Your task to perform on an android device: Open eBay Image 0: 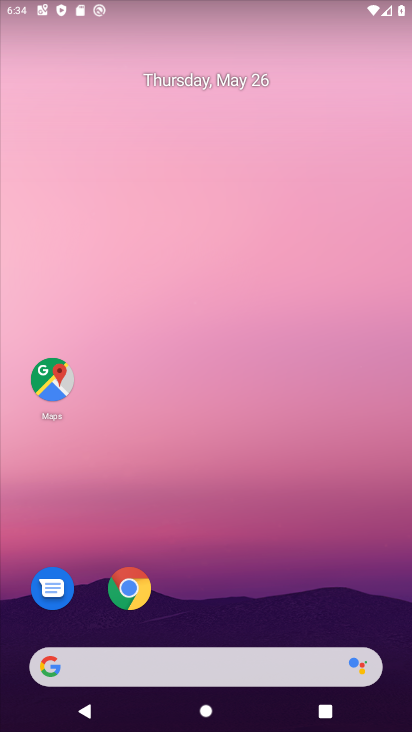
Step 0: drag from (350, 635) to (287, 61)
Your task to perform on an android device: Open eBay Image 1: 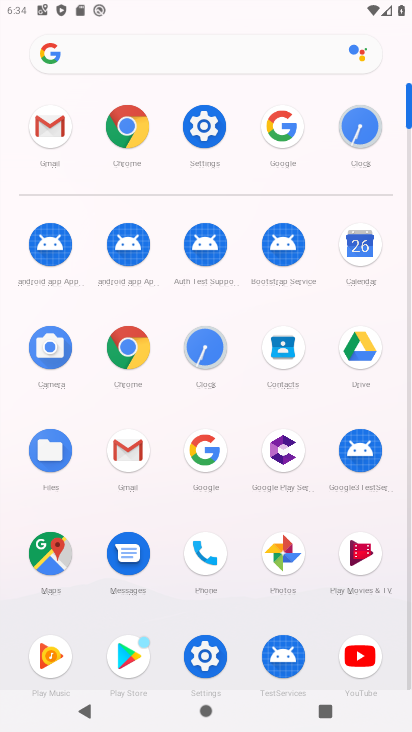
Step 1: click (205, 466)
Your task to perform on an android device: Open eBay Image 2: 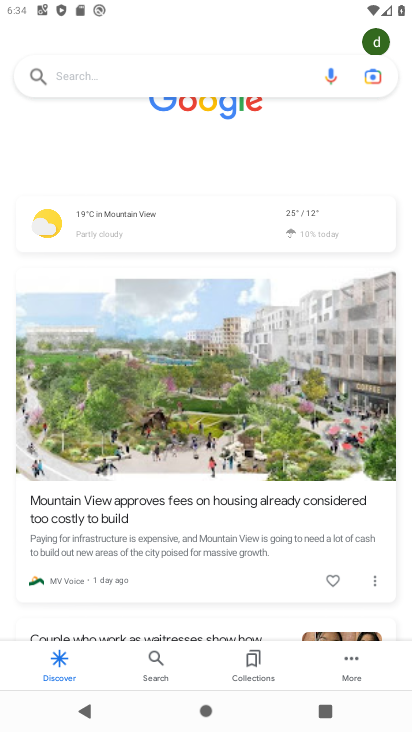
Step 2: click (139, 81)
Your task to perform on an android device: Open eBay Image 3: 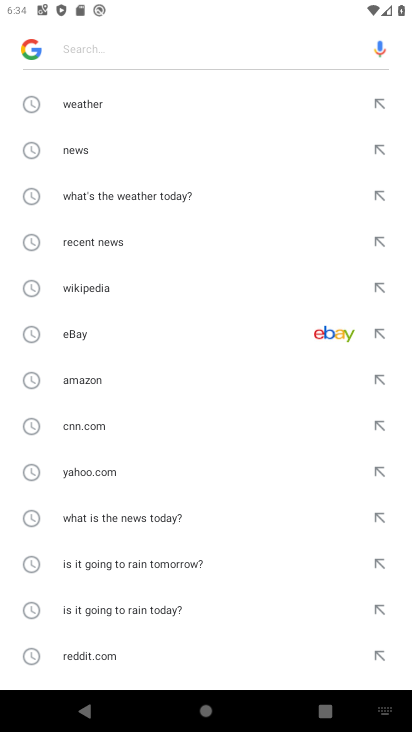
Step 3: click (85, 349)
Your task to perform on an android device: Open eBay Image 4: 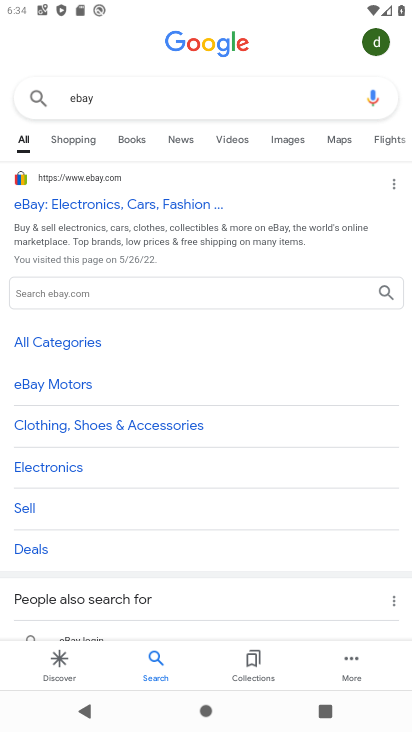
Step 4: task complete